Your task to perform on an android device: turn off improve location accuracy Image 0: 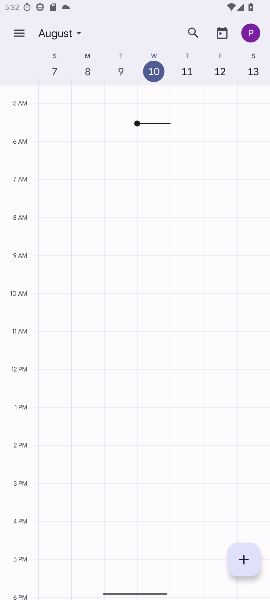
Step 0: press home button
Your task to perform on an android device: turn off improve location accuracy Image 1: 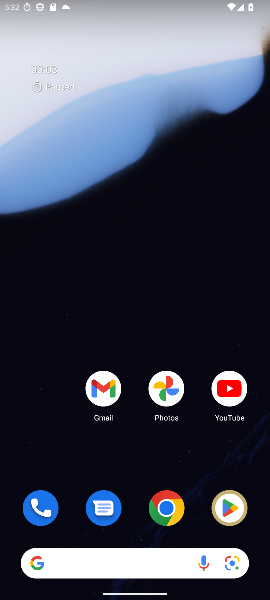
Step 1: drag from (58, 459) to (82, 50)
Your task to perform on an android device: turn off improve location accuracy Image 2: 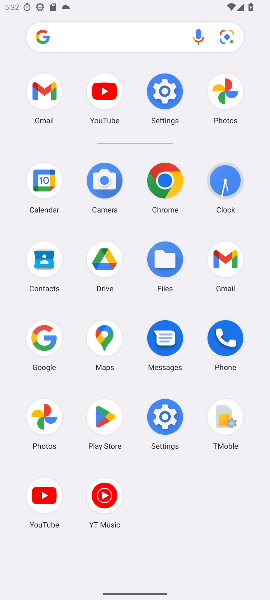
Step 2: click (169, 94)
Your task to perform on an android device: turn off improve location accuracy Image 3: 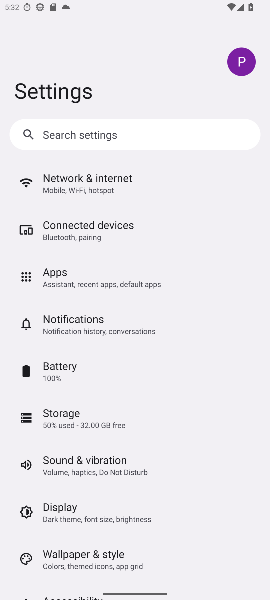
Step 3: drag from (24, 450) to (74, 157)
Your task to perform on an android device: turn off improve location accuracy Image 4: 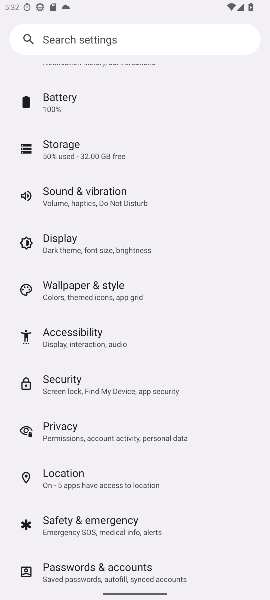
Step 4: click (63, 477)
Your task to perform on an android device: turn off improve location accuracy Image 5: 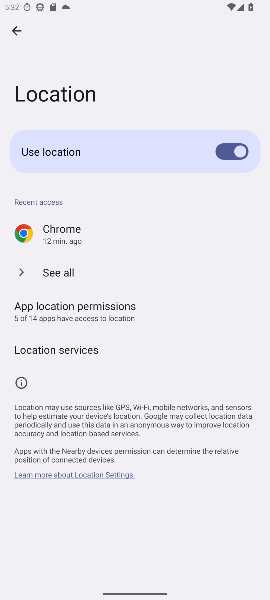
Step 5: click (31, 345)
Your task to perform on an android device: turn off improve location accuracy Image 6: 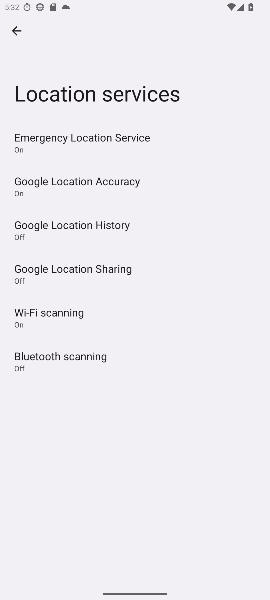
Step 6: click (46, 184)
Your task to perform on an android device: turn off improve location accuracy Image 7: 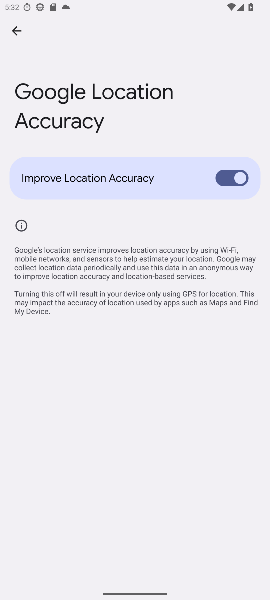
Step 7: click (234, 175)
Your task to perform on an android device: turn off improve location accuracy Image 8: 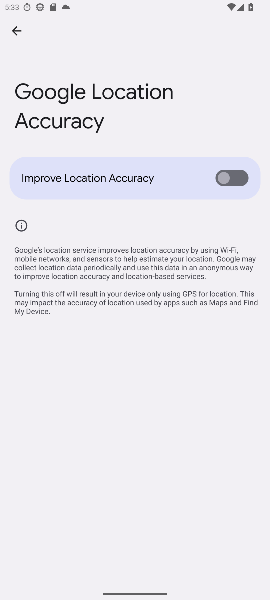
Step 8: task complete